Your task to perform on an android device: turn off data saver in the chrome app Image 0: 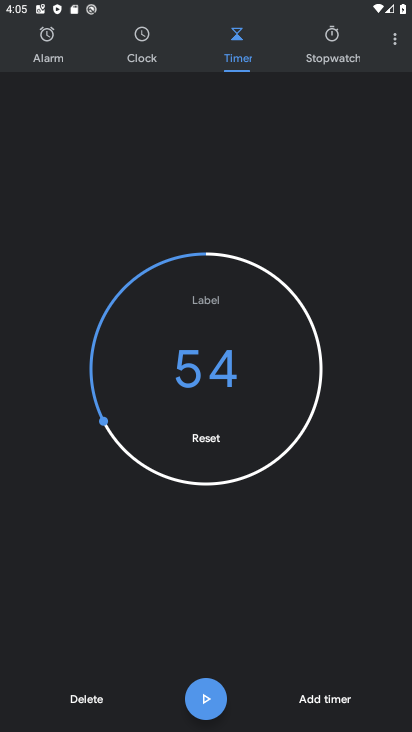
Step 0: press home button
Your task to perform on an android device: turn off data saver in the chrome app Image 1: 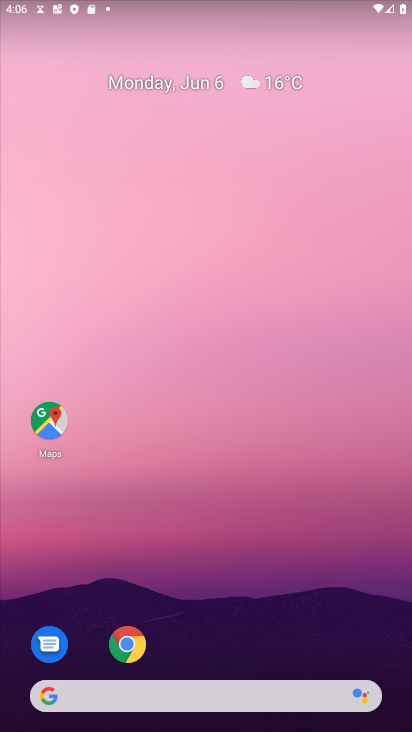
Step 1: click (133, 651)
Your task to perform on an android device: turn off data saver in the chrome app Image 2: 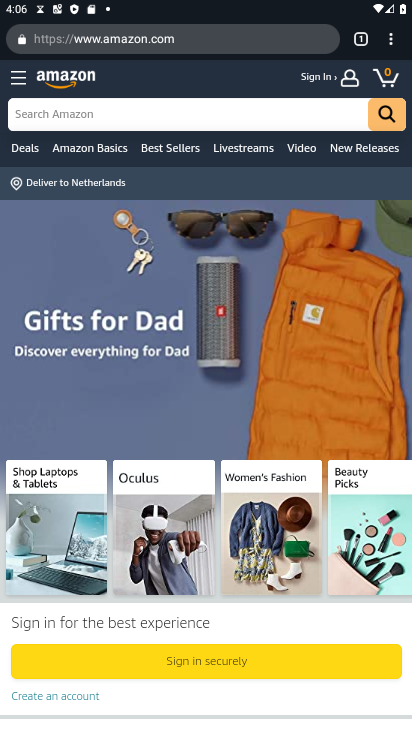
Step 2: click (390, 37)
Your task to perform on an android device: turn off data saver in the chrome app Image 3: 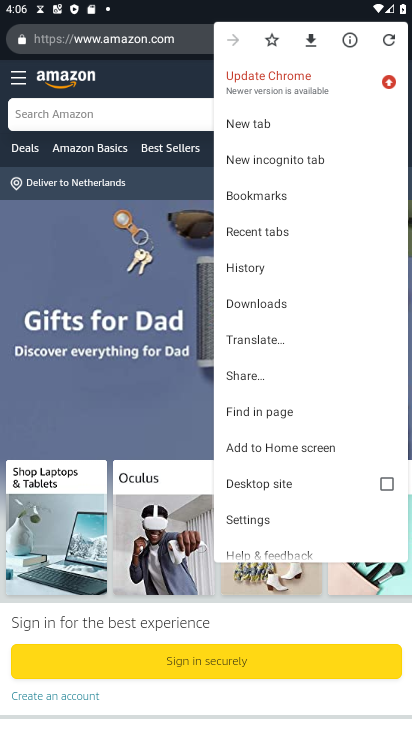
Step 3: click (254, 523)
Your task to perform on an android device: turn off data saver in the chrome app Image 4: 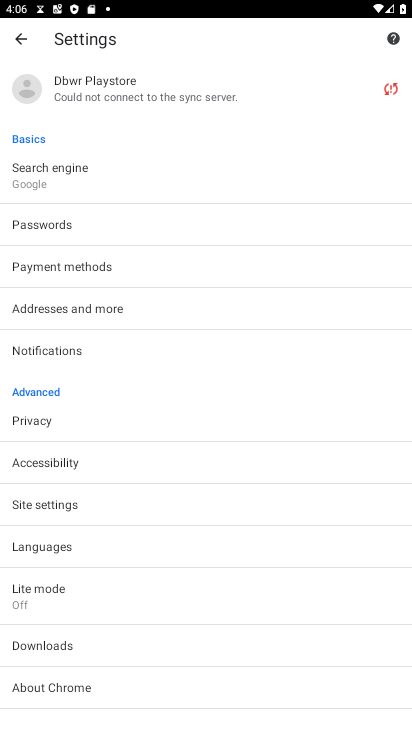
Step 4: click (22, 592)
Your task to perform on an android device: turn off data saver in the chrome app Image 5: 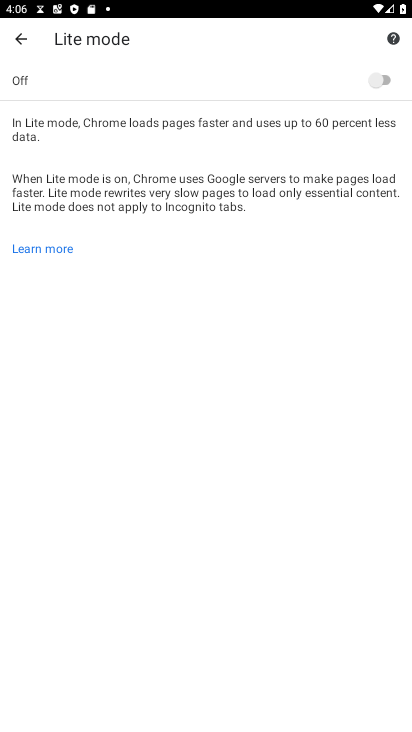
Step 5: task complete